Your task to perform on an android device: turn off location history Image 0: 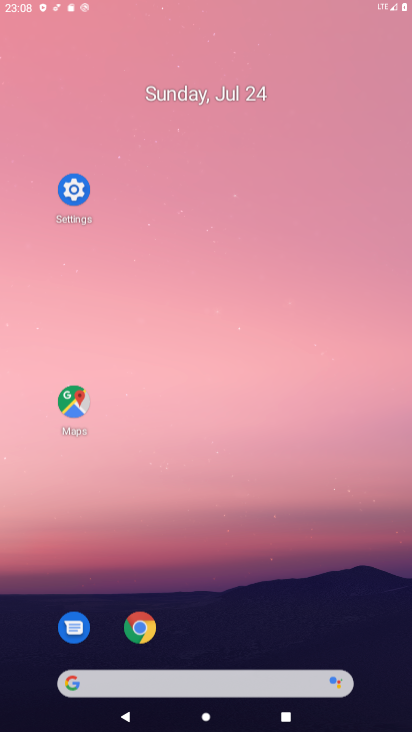
Step 0: drag from (284, 612) to (306, 36)
Your task to perform on an android device: turn off location history Image 1: 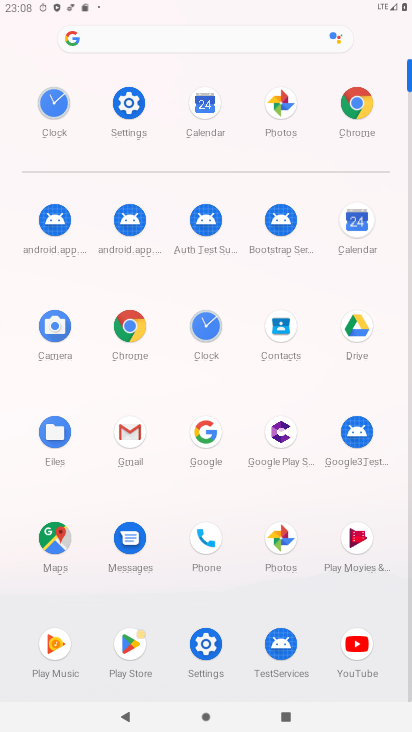
Step 1: click (119, 123)
Your task to perform on an android device: turn off location history Image 2: 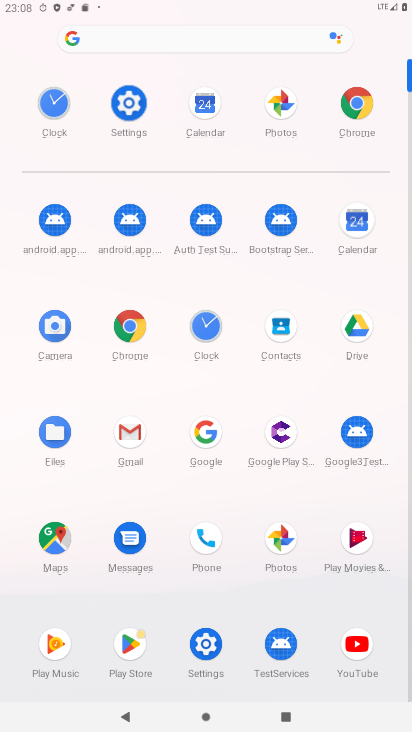
Step 2: click (149, 122)
Your task to perform on an android device: turn off location history Image 3: 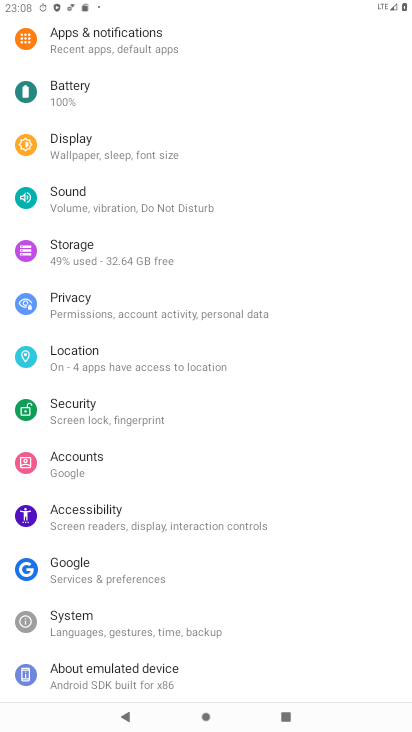
Step 3: drag from (219, 158) to (233, 69)
Your task to perform on an android device: turn off location history Image 4: 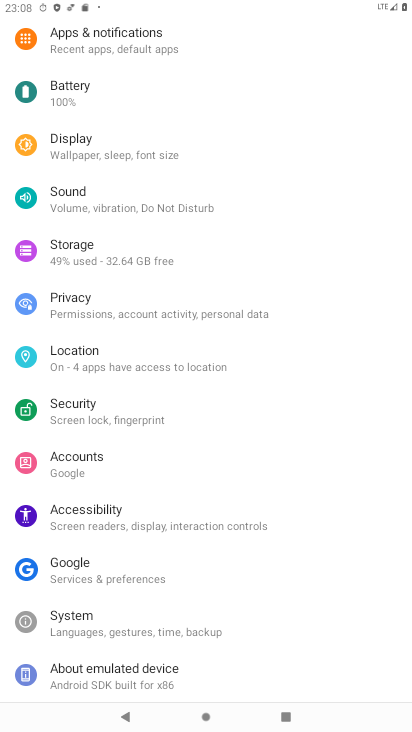
Step 4: drag from (205, 460) to (243, 34)
Your task to perform on an android device: turn off location history Image 5: 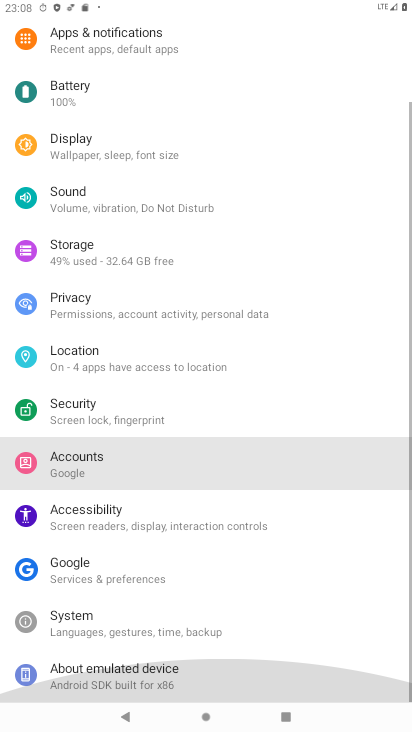
Step 5: drag from (211, 530) to (185, 94)
Your task to perform on an android device: turn off location history Image 6: 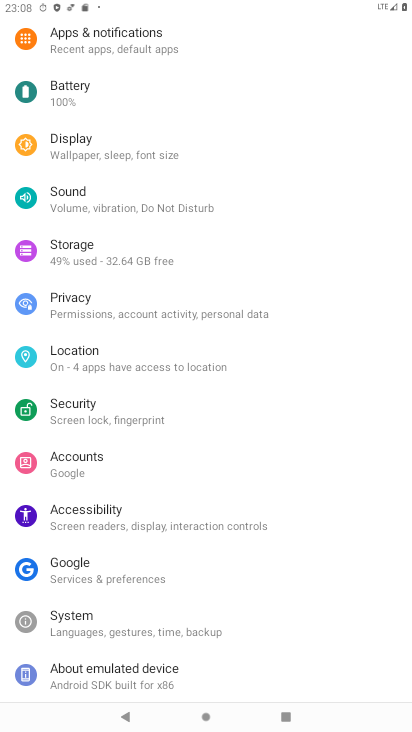
Step 6: click (92, 346)
Your task to perform on an android device: turn off location history Image 7: 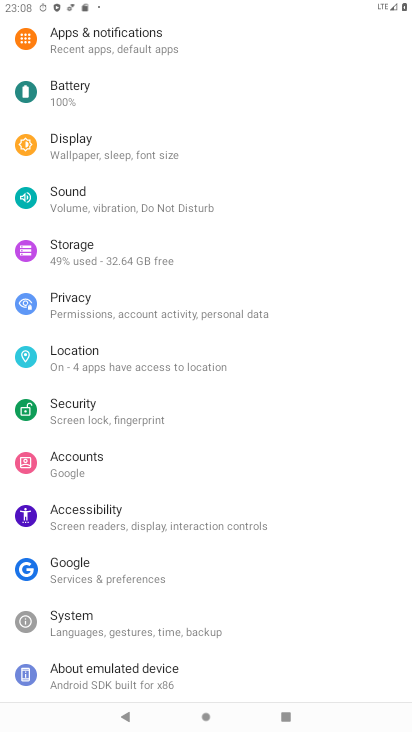
Step 7: click (94, 365)
Your task to perform on an android device: turn off location history Image 8: 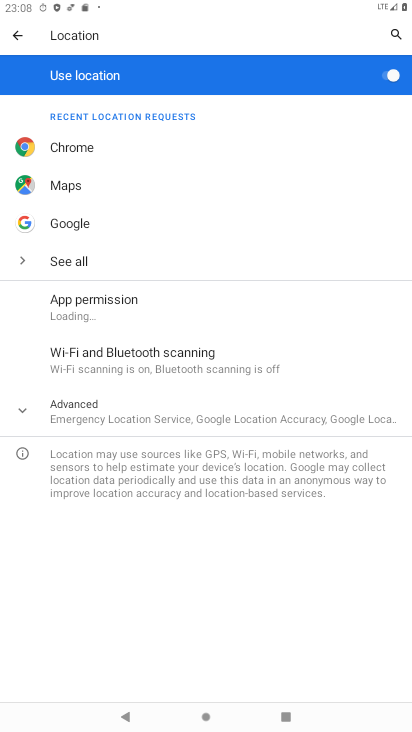
Step 8: click (76, 402)
Your task to perform on an android device: turn off location history Image 9: 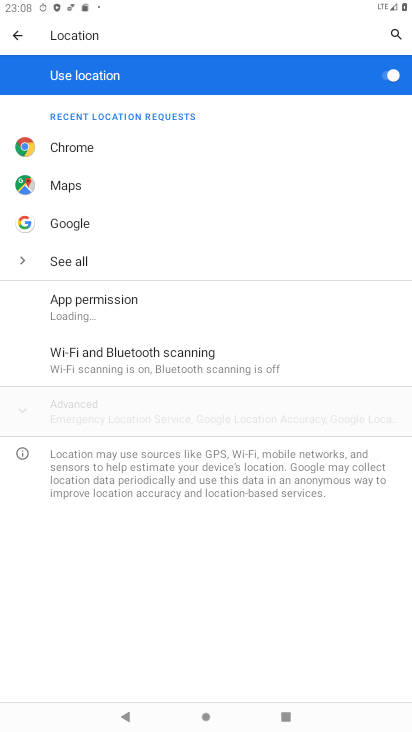
Step 9: click (71, 400)
Your task to perform on an android device: turn off location history Image 10: 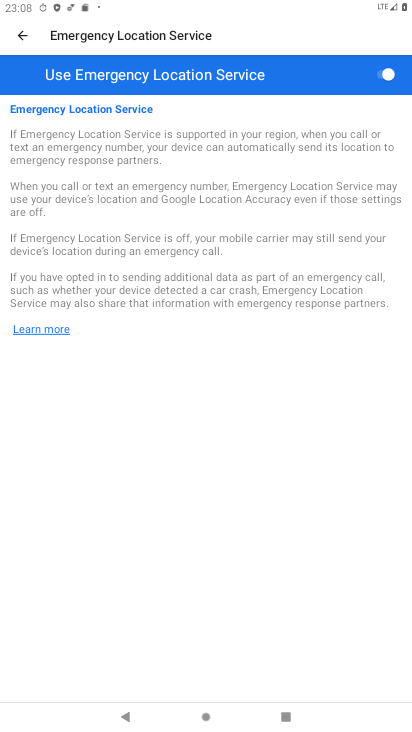
Step 10: click (20, 29)
Your task to perform on an android device: turn off location history Image 11: 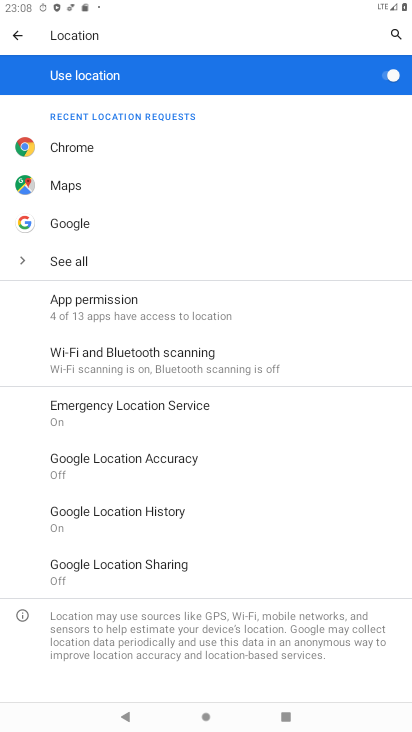
Step 11: click (130, 510)
Your task to perform on an android device: turn off location history Image 12: 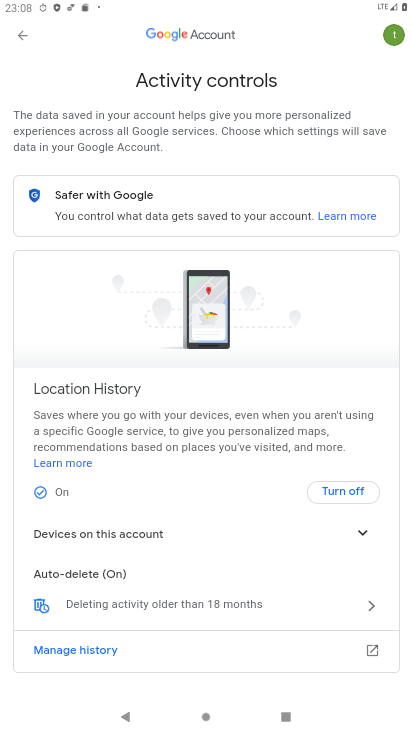
Step 12: click (342, 492)
Your task to perform on an android device: turn off location history Image 13: 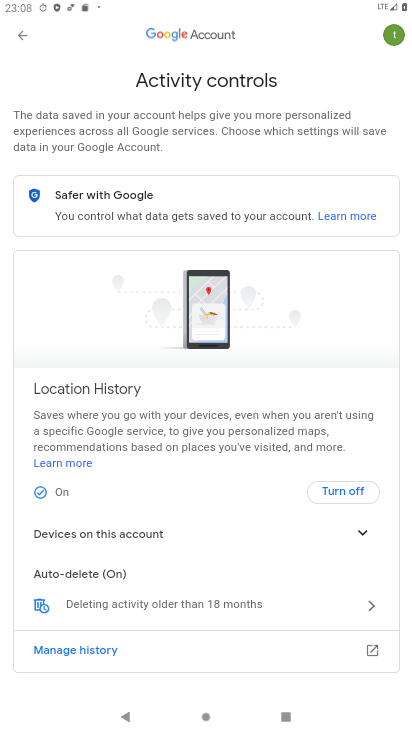
Step 13: click (342, 492)
Your task to perform on an android device: turn off location history Image 14: 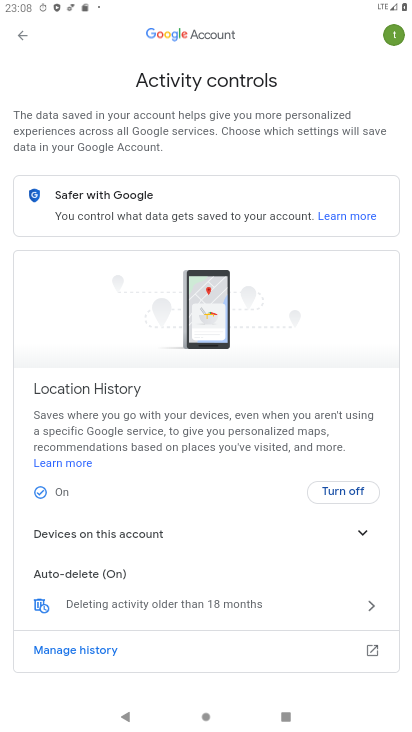
Step 14: click (342, 488)
Your task to perform on an android device: turn off location history Image 15: 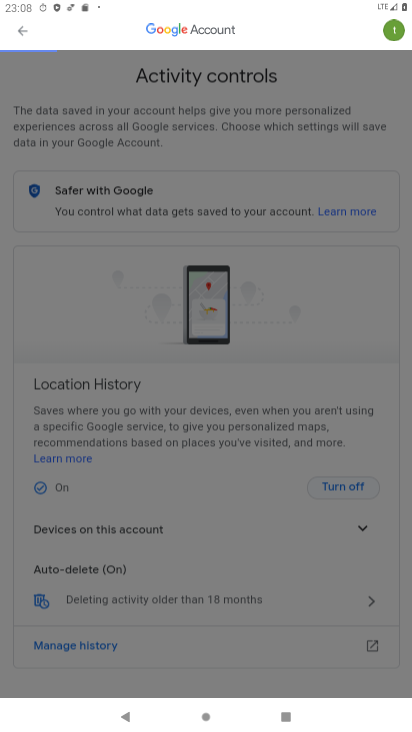
Step 15: task complete